Your task to perform on an android device: Is it going to rain today? Image 0: 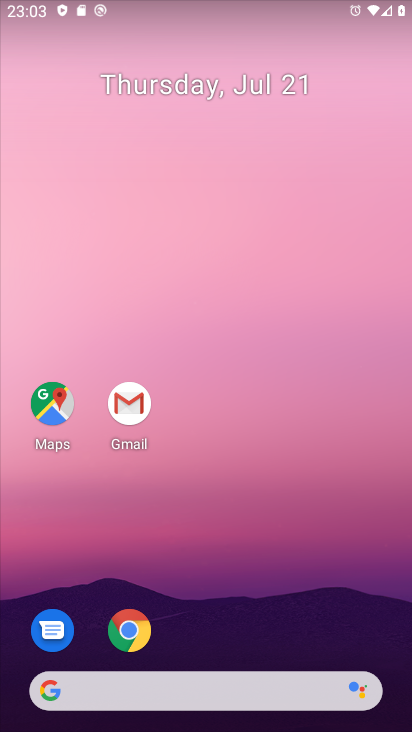
Step 0: click (272, 279)
Your task to perform on an android device: Is it going to rain today? Image 1: 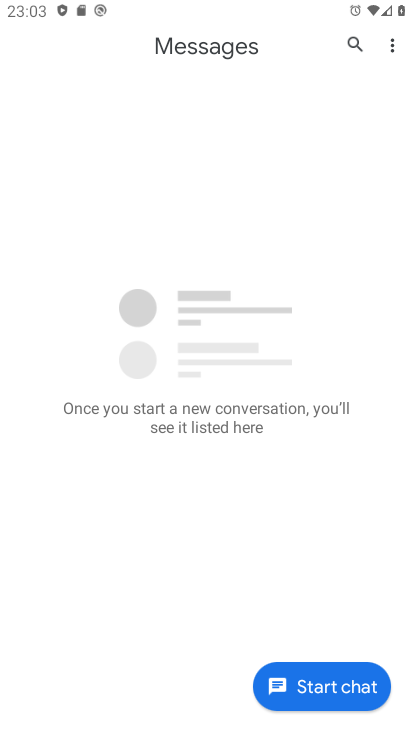
Step 1: press back button
Your task to perform on an android device: Is it going to rain today? Image 2: 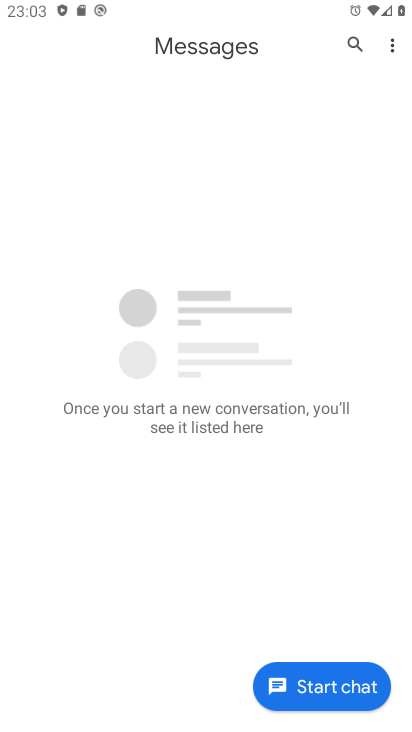
Step 2: press back button
Your task to perform on an android device: Is it going to rain today? Image 3: 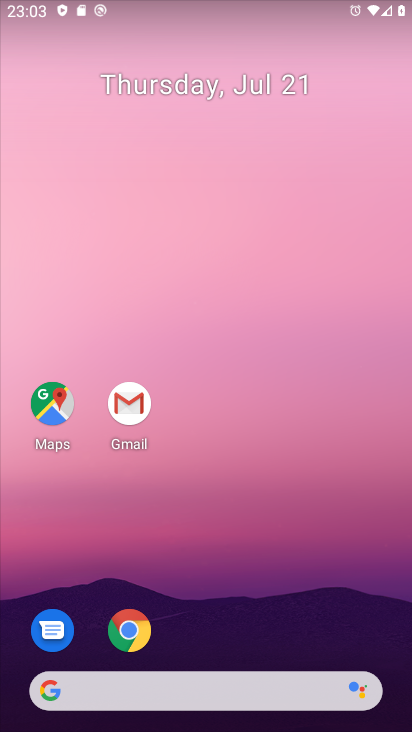
Step 3: drag from (27, 175) to (380, 322)
Your task to perform on an android device: Is it going to rain today? Image 4: 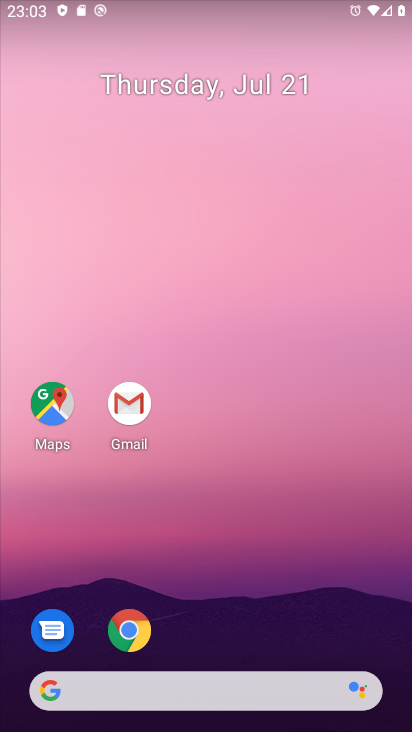
Step 4: click (357, 256)
Your task to perform on an android device: Is it going to rain today? Image 5: 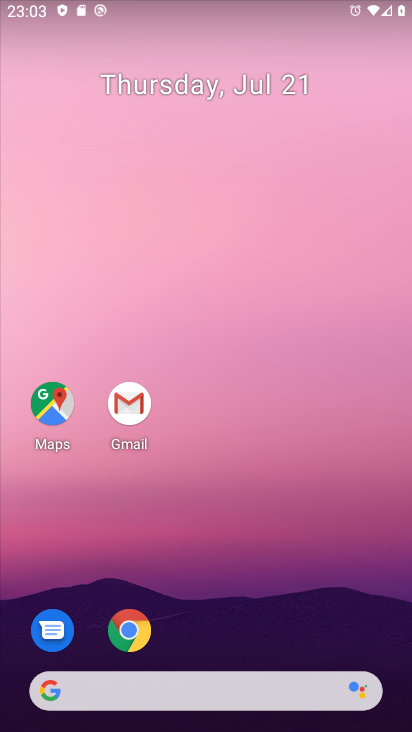
Step 5: click (282, 85)
Your task to perform on an android device: Is it going to rain today? Image 6: 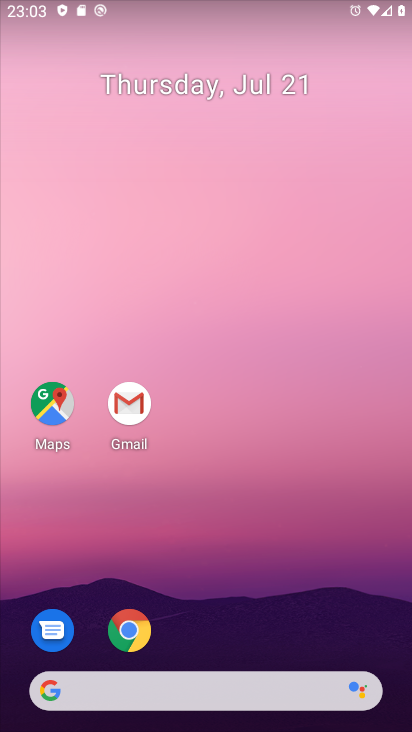
Step 6: click (282, 85)
Your task to perform on an android device: Is it going to rain today? Image 7: 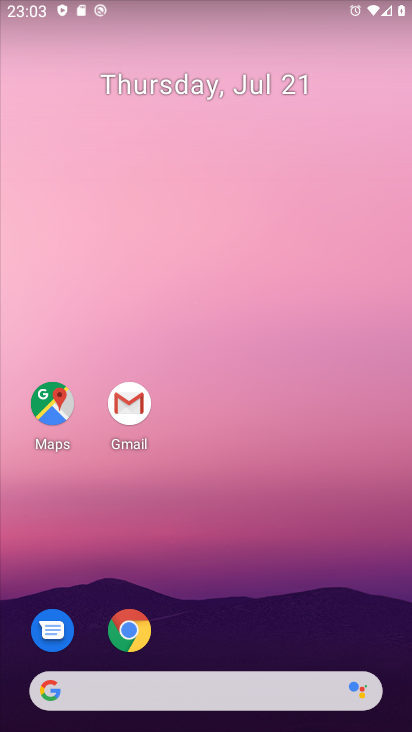
Step 7: click (280, 87)
Your task to perform on an android device: Is it going to rain today? Image 8: 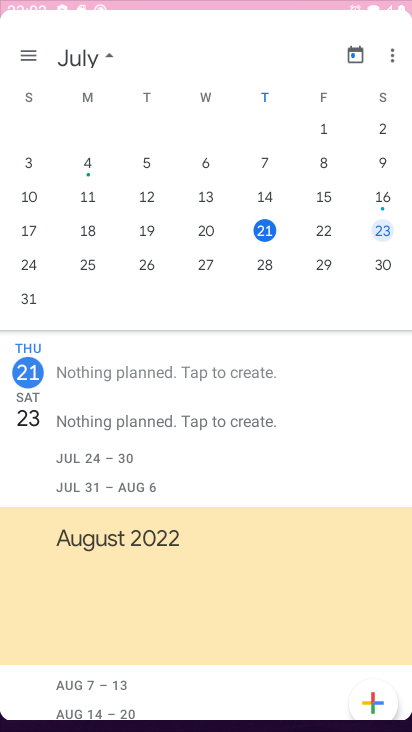
Step 8: click (273, 79)
Your task to perform on an android device: Is it going to rain today? Image 9: 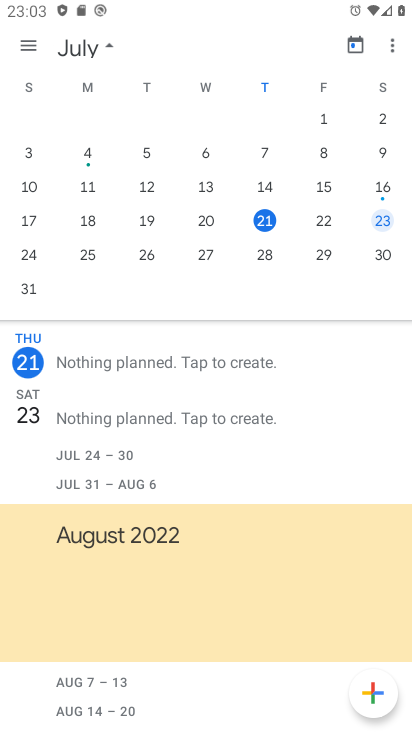
Step 9: click (273, 79)
Your task to perform on an android device: Is it going to rain today? Image 10: 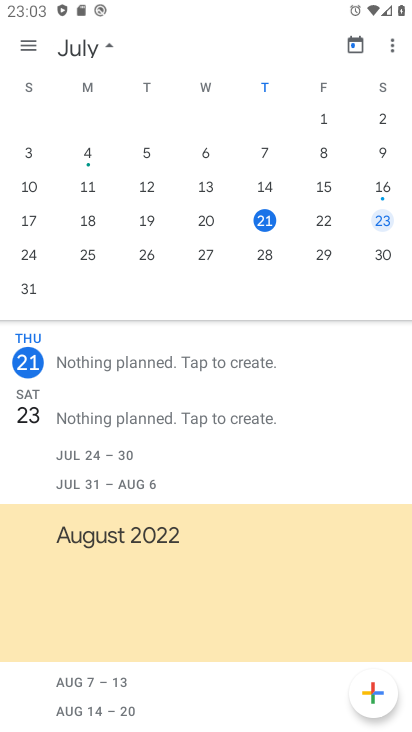
Step 10: press back button
Your task to perform on an android device: Is it going to rain today? Image 11: 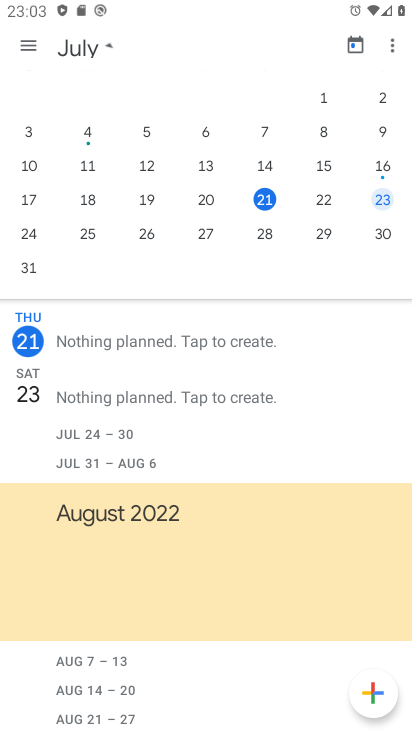
Step 11: press back button
Your task to perform on an android device: Is it going to rain today? Image 12: 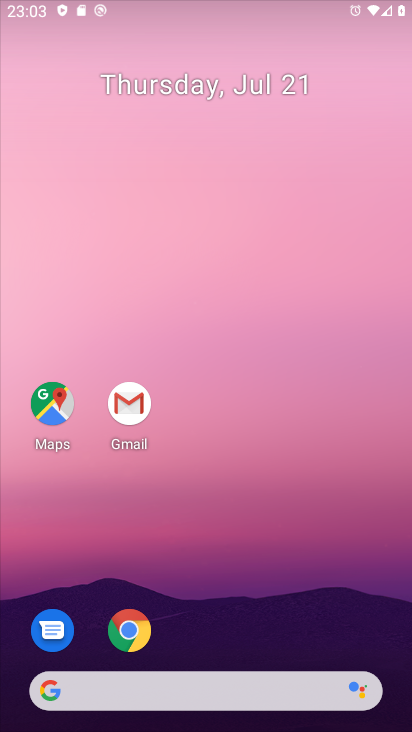
Step 12: press back button
Your task to perform on an android device: Is it going to rain today? Image 13: 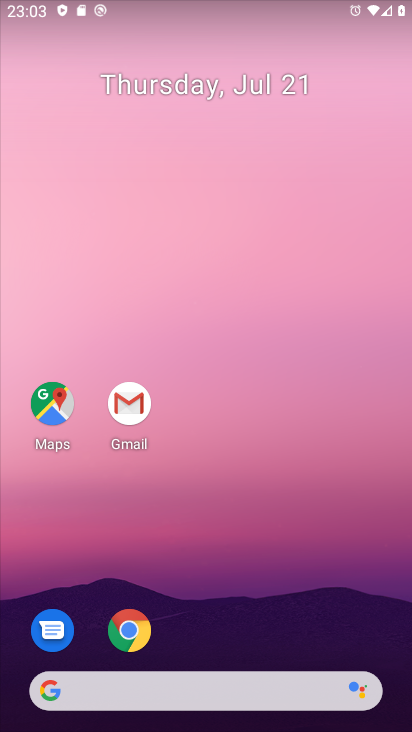
Step 13: drag from (67, 128) to (378, 333)
Your task to perform on an android device: Is it going to rain today? Image 14: 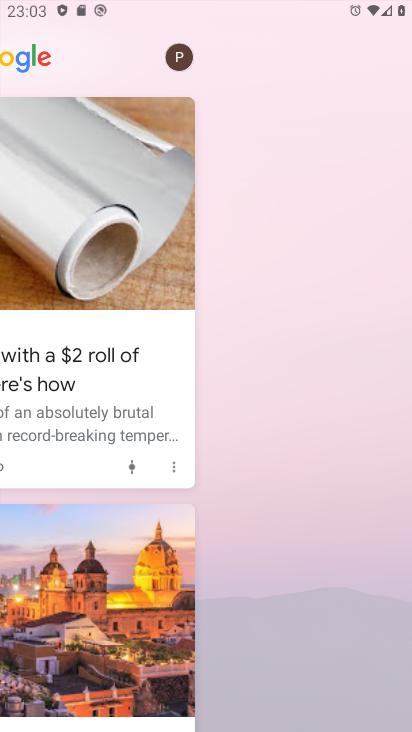
Step 14: drag from (31, 269) to (324, 406)
Your task to perform on an android device: Is it going to rain today? Image 15: 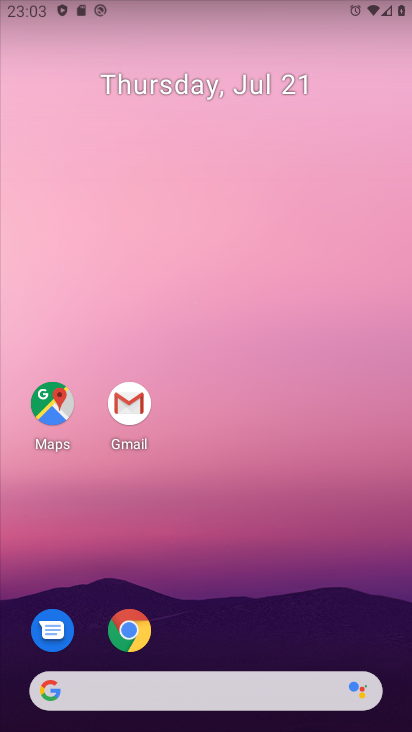
Step 15: click (392, 371)
Your task to perform on an android device: Is it going to rain today? Image 16: 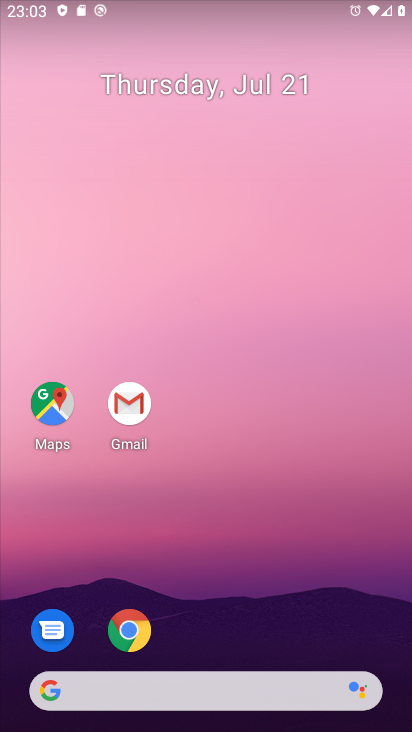
Step 16: drag from (25, 295) to (339, 231)
Your task to perform on an android device: Is it going to rain today? Image 17: 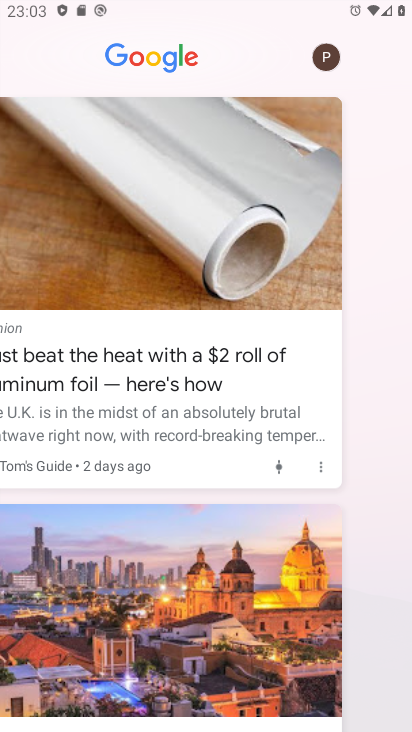
Step 17: drag from (156, 162) to (361, 273)
Your task to perform on an android device: Is it going to rain today? Image 18: 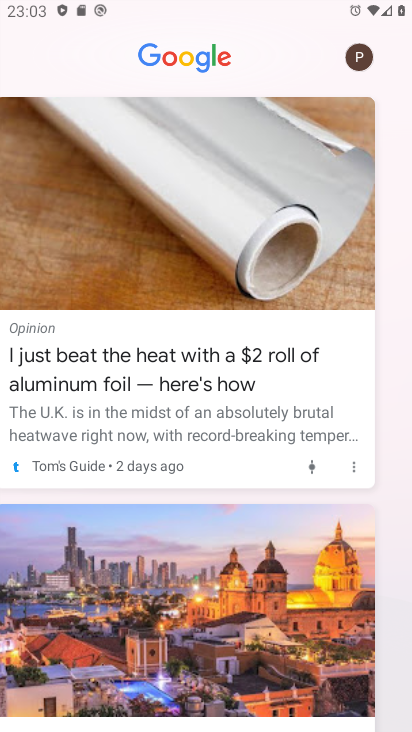
Step 18: drag from (143, 225) to (215, 571)
Your task to perform on an android device: Is it going to rain today? Image 19: 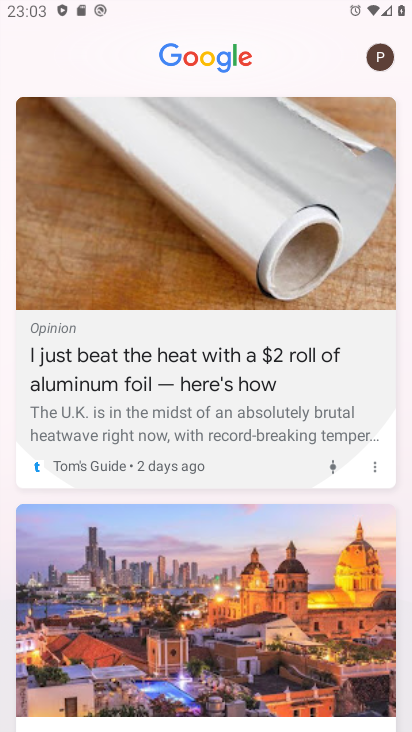
Step 19: drag from (167, 193) to (218, 555)
Your task to perform on an android device: Is it going to rain today? Image 20: 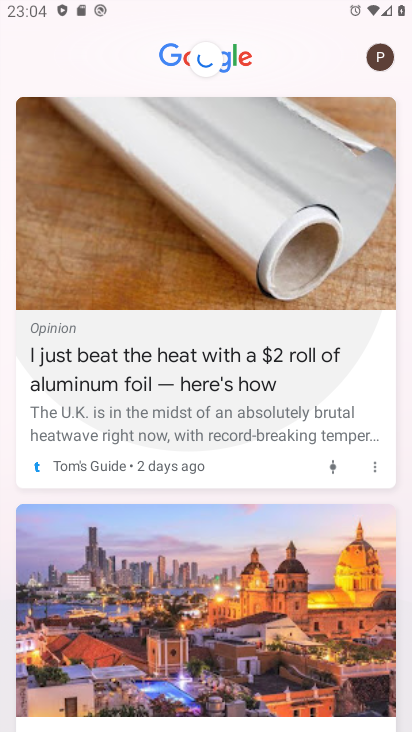
Step 20: drag from (260, 442) to (263, 583)
Your task to perform on an android device: Is it going to rain today? Image 21: 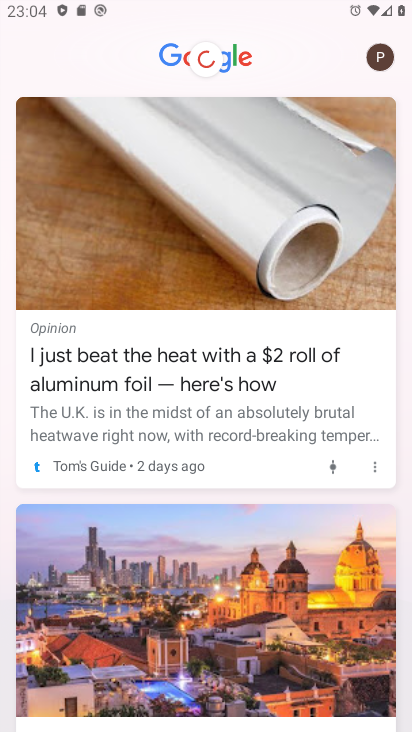
Step 21: drag from (255, 283) to (262, 351)
Your task to perform on an android device: Is it going to rain today? Image 22: 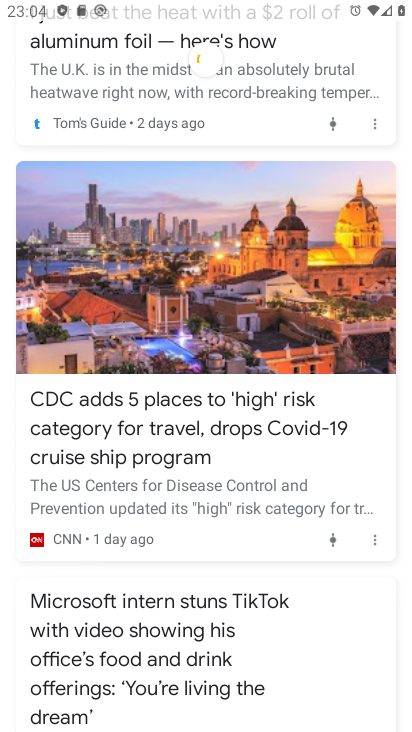
Step 22: drag from (253, 194) to (241, 424)
Your task to perform on an android device: Is it going to rain today? Image 23: 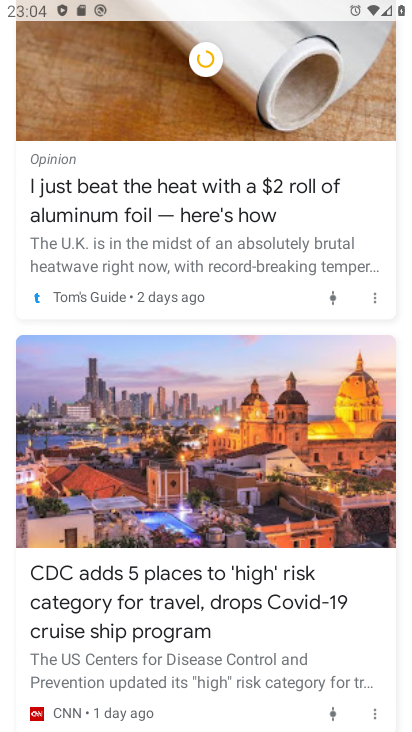
Step 23: drag from (206, 75) to (210, 511)
Your task to perform on an android device: Is it going to rain today? Image 24: 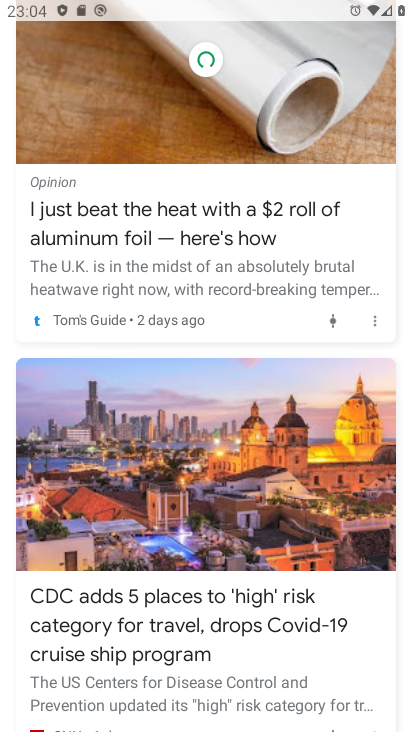
Step 24: drag from (210, 193) to (205, 661)
Your task to perform on an android device: Is it going to rain today? Image 25: 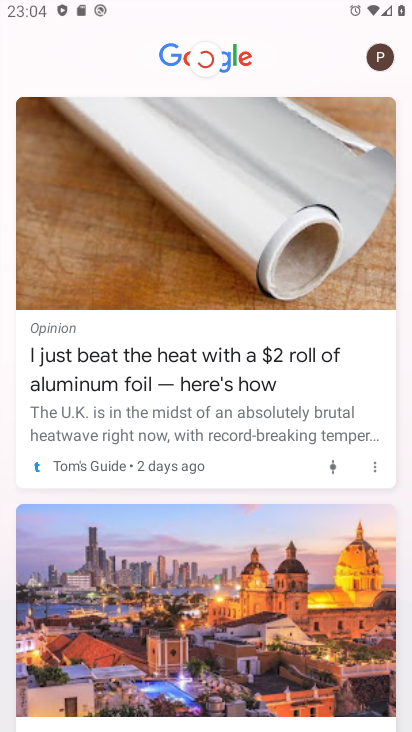
Step 25: drag from (376, 352) to (17, 361)
Your task to perform on an android device: Is it going to rain today? Image 26: 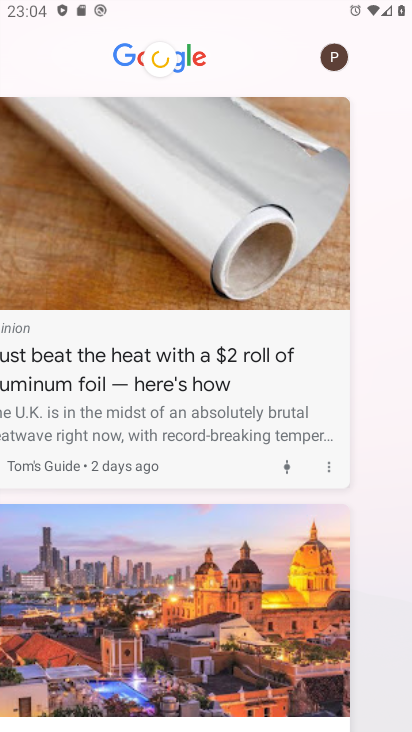
Step 26: drag from (216, 360) to (20, 347)
Your task to perform on an android device: Is it going to rain today? Image 27: 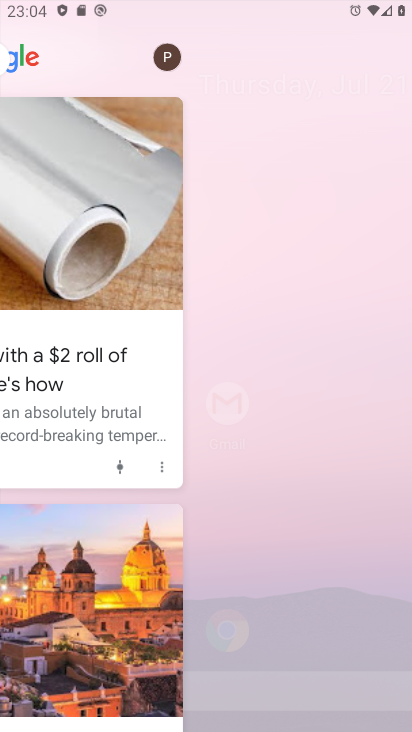
Step 27: drag from (288, 293) to (4, 286)
Your task to perform on an android device: Is it going to rain today? Image 28: 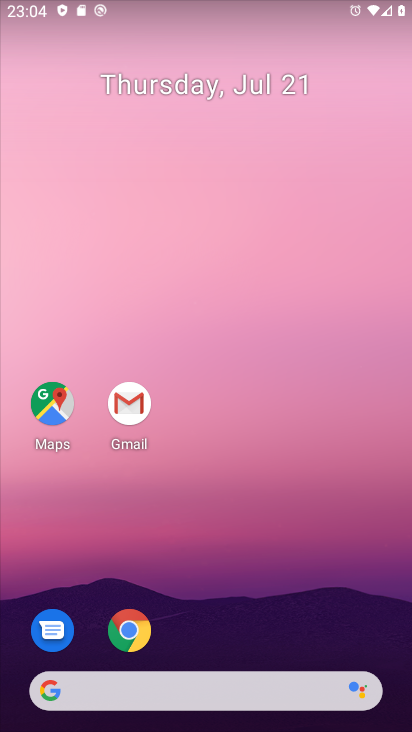
Step 28: drag from (247, 604) to (229, 1)
Your task to perform on an android device: Is it going to rain today? Image 29: 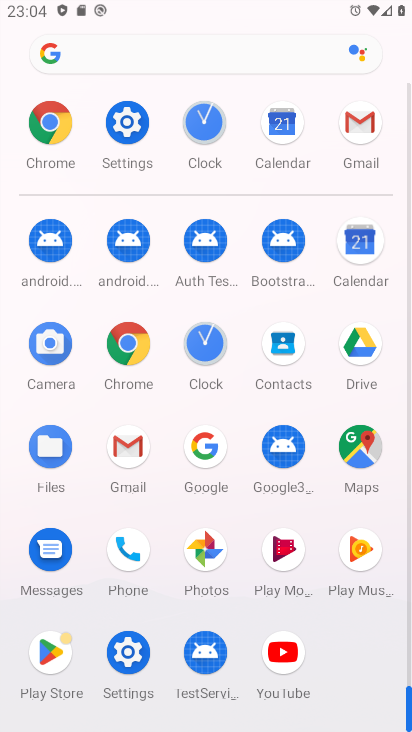
Step 29: click (130, 347)
Your task to perform on an android device: Is it going to rain today? Image 30: 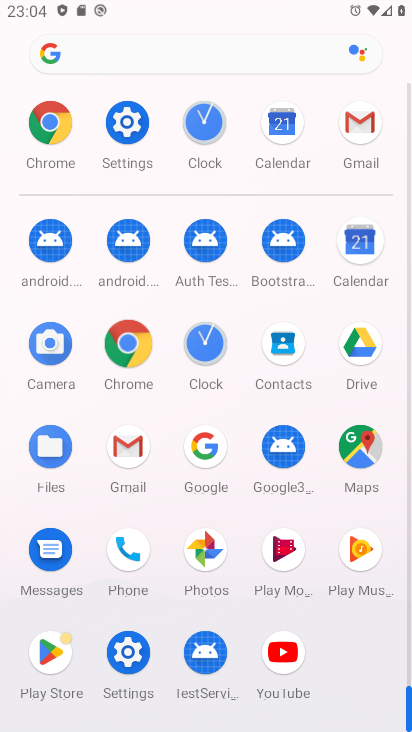
Step 30: click (128, 344)
Your task to perform on an android device: Is it going to rain today? Image 31: 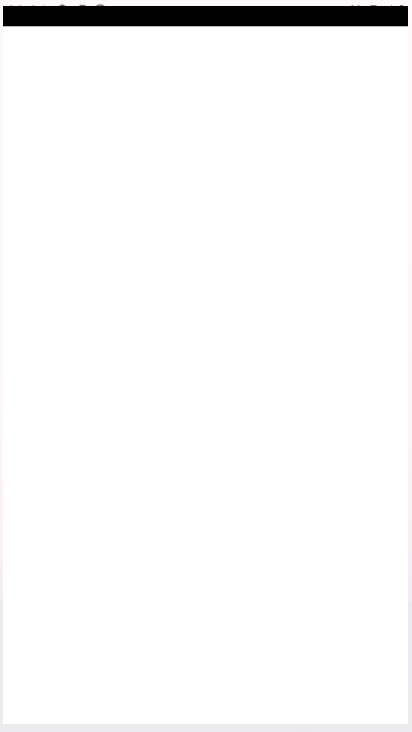
Step 31: click (128, 345)
Your task to perform on an android device: Is it going to rain today? Image 32: 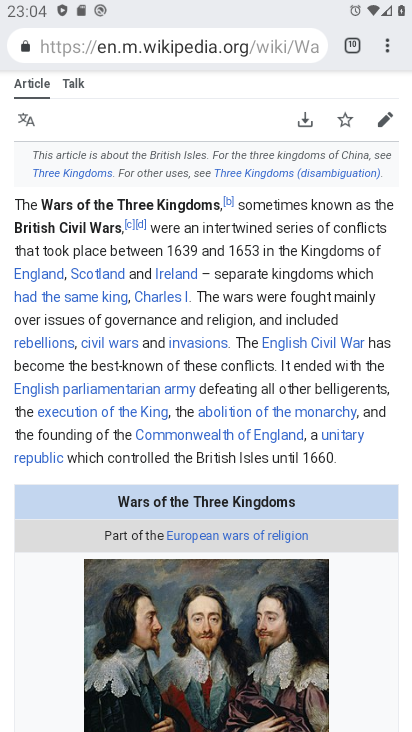
Step 32: drag from (383, 47) to (249, 88)
Your task to perform on an android device: Is it going to rain today? Image 33: 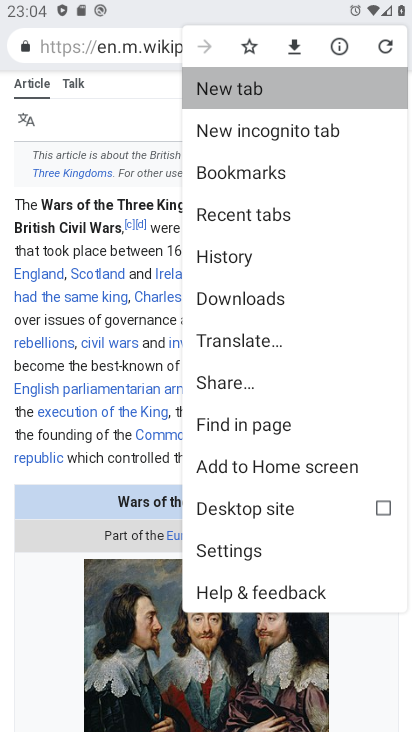
Step 33: click (249, 88)
Your task to perform on an android device: Is it going to rain today? Image 34: 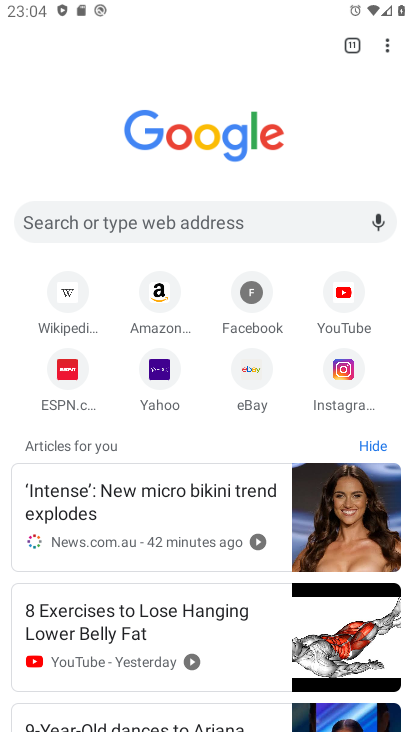
Step 34: click (42, 223)
Your task to perform on an android device: Is it going to rain today? Image 35: 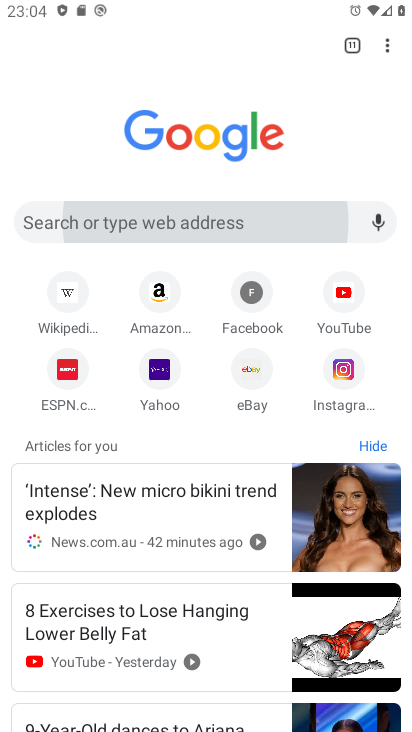
Step 35: click (47, 219)
Your task to perform on an android device: Is it going to rain today? Image 36: 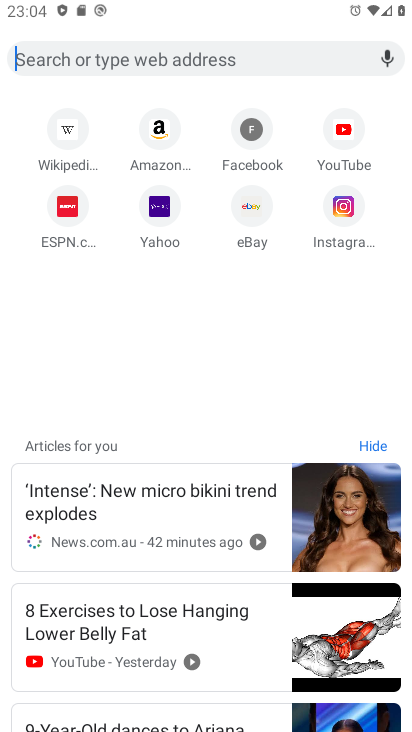
Step 36: click (47, 219)
Your task to perform on an android device: Is it going to rain today? Image 37: 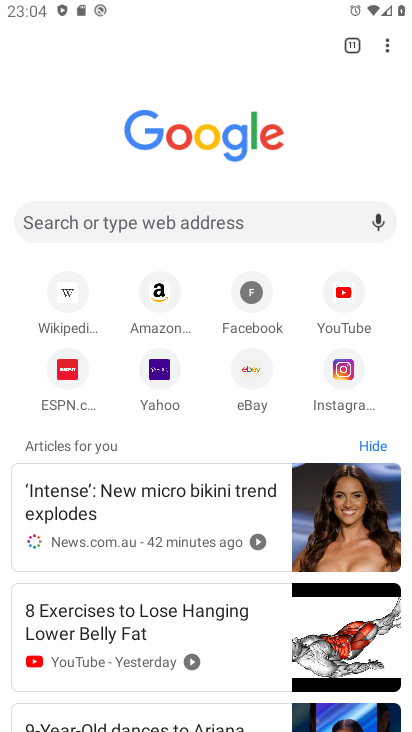
Step 37: click (54, 219)
Your task to perform on an android device: Is it going to rain today? Image 38: 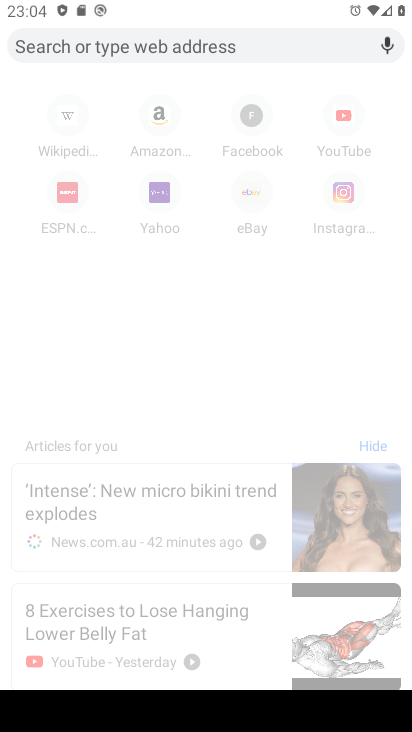
Step 38: type "is it going to rain today?"
Your task to perform on an android device: Is it going to rain today? Image 39: 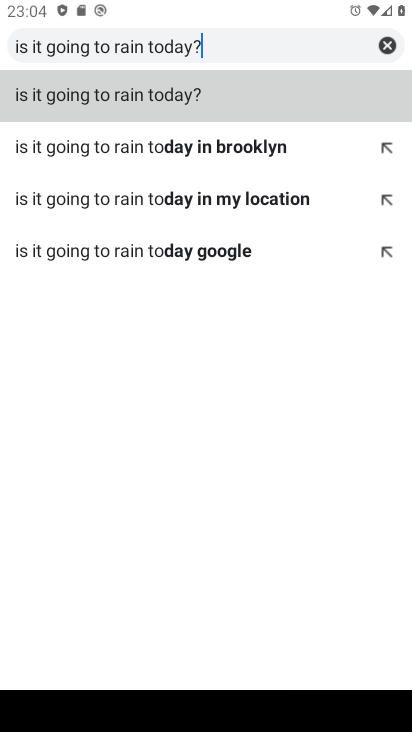
Step 39: click (151, 101)
Your task to perform on an android device: Is it going to rain today? Image 40: 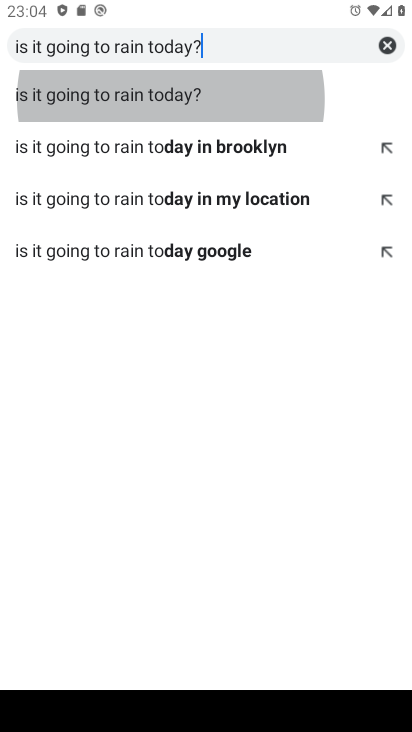
Step 40: click (151, 101)
Your task to perform on an android device: Is it going to rain today? Image 41: 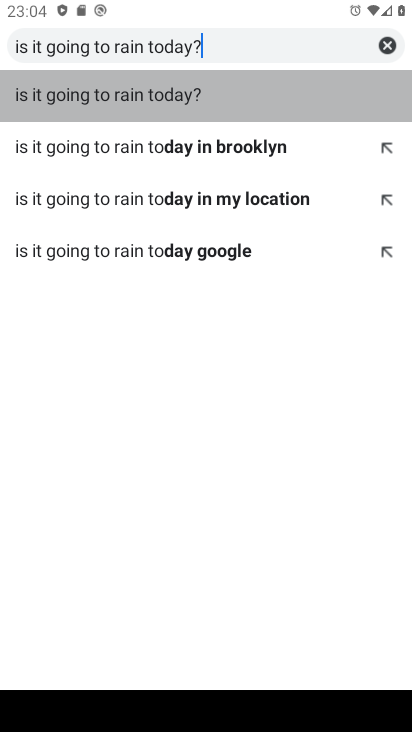
Step 41: click (151, 101)
Your task to perform on an android device: Is it going to rain today? Image 42: 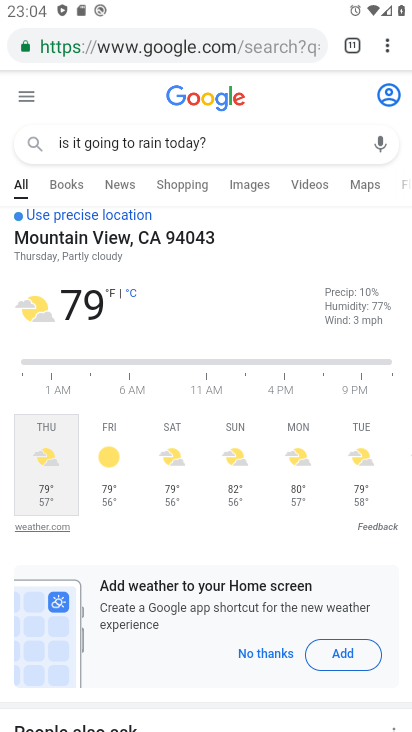
Step 42: task complete